Your task to perform on an android device: choose inbox layout in the gmail app Image 0: 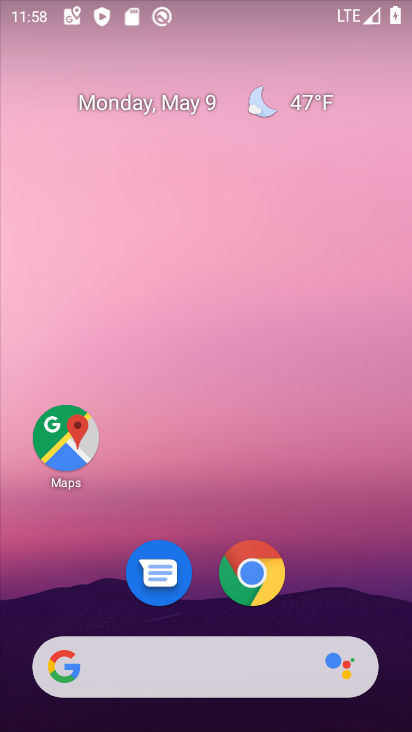
Step 0: drag from (207, 617) to (233, 165)
Your task to perform on an android device: choose inbox layout in the gmail app Image 1: 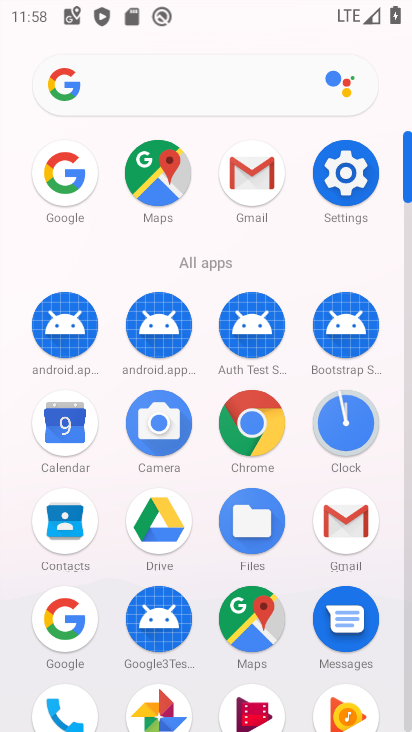
Step 1: click (244, 195)
Your task to perform on an android device: choose inbox layout in the gmail app Image 2: 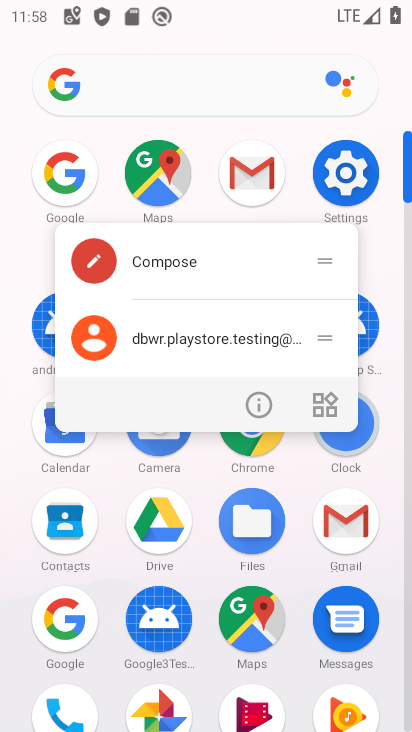
Step 2: click (257, 400)
Your task to perform on an android device: choose inbox layout in the gmail app Image 3: 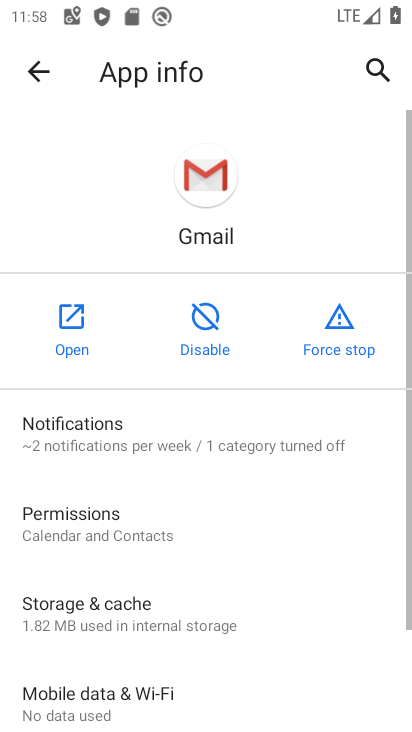
Step 3: click (74, 317)
Your task to perform on an android device: choose inbox layout in the gmail app Image 4: 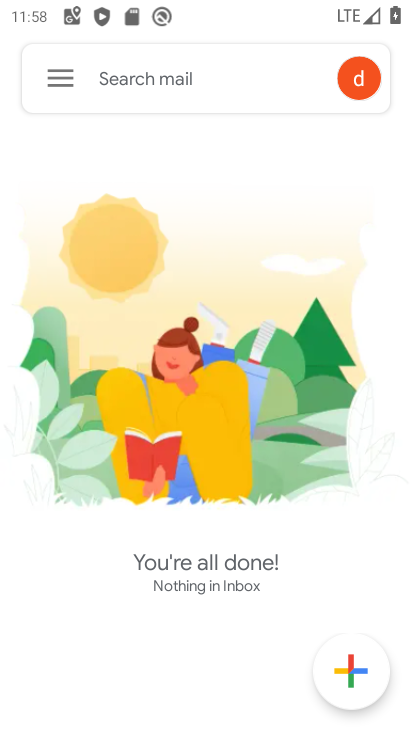
Step 4: click (46, 37)
Your task to perform on an android device: choose inbox layout in the gmail app Image 5: 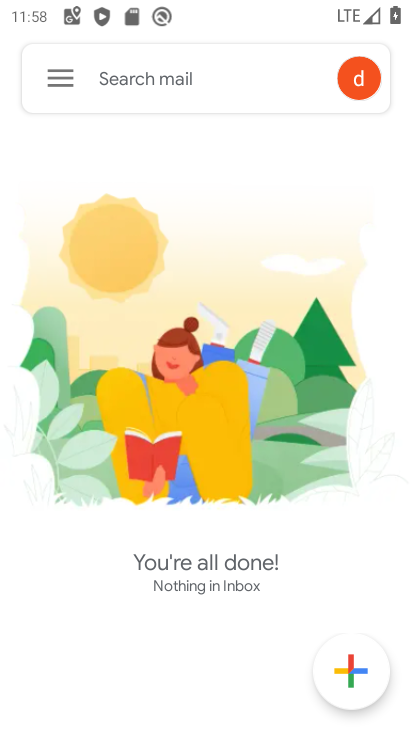
Step 5: click (52, 72)
Your task to perform on an android device: choose inbox layout in the gmail app Image 6: 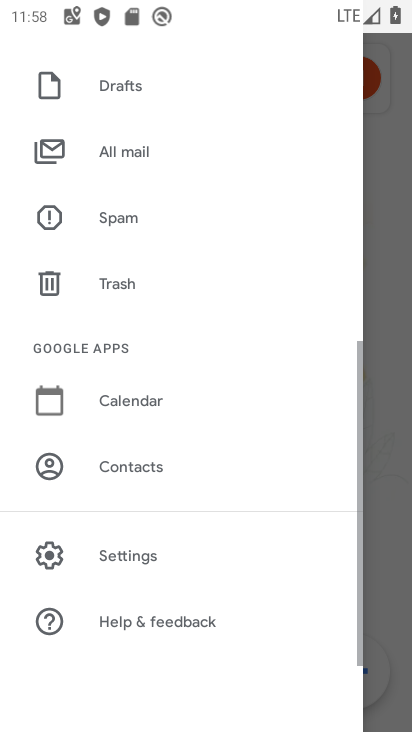
Step 6: drag from (169, 560) to (235, 232)
Your task to perform on an android device: choose inbox layout in the gmail app Image 7: 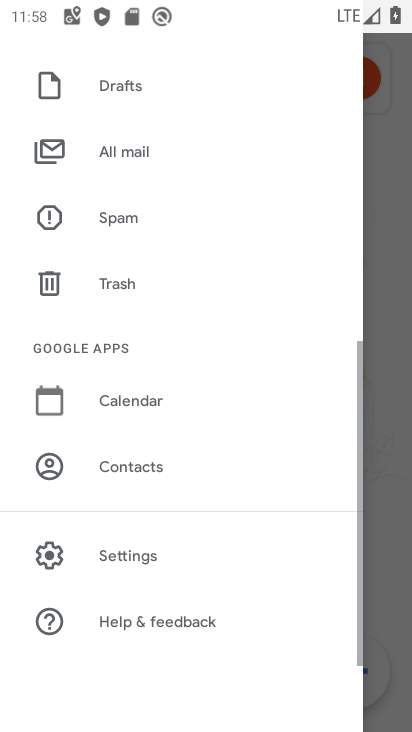
Step 7: click (139, 584)
Your task to perform on an android device: choose inbox layout in the gmail app Image 8: 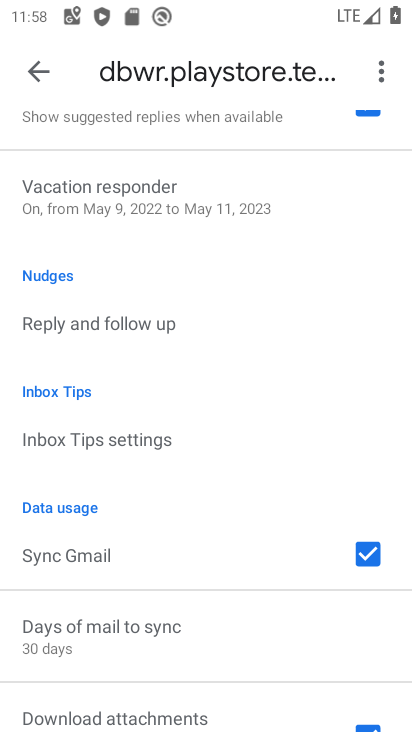
Step 8: click (29, 65)
Your task to perform on an android device: choose inbox layout in the gmail app Image 9: 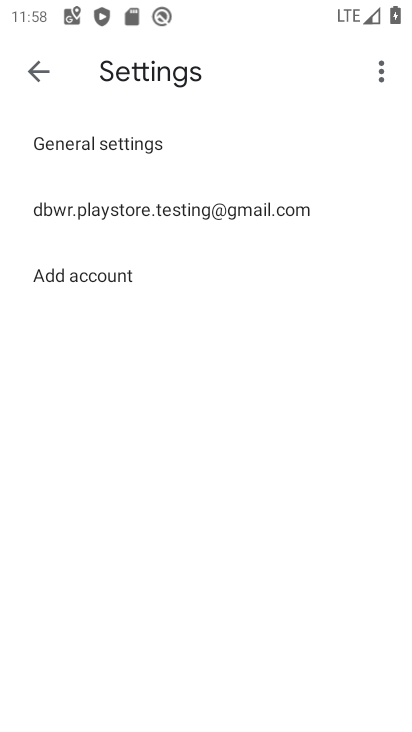
Step 9: click (43, 79)
Your task to perform on an android device: choose inbox layout in the gmail app Image 10: 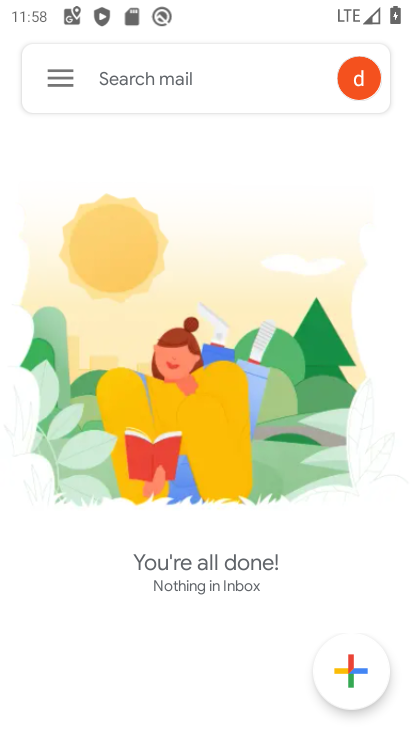
Step 10: click (57, 74)
Your task to perform on an android device: choose inbox layout in the gmail app Image 11: 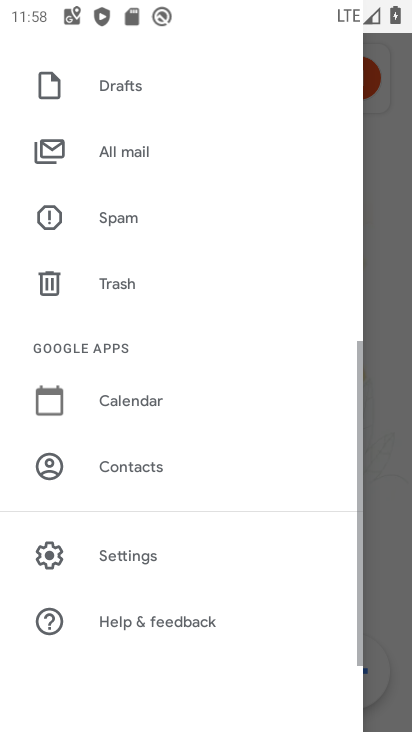
Step 11: drag from (129, 144) to (219, 727)
Your task to perform on an android device: choose inbox layout in the gmail app Image 12: 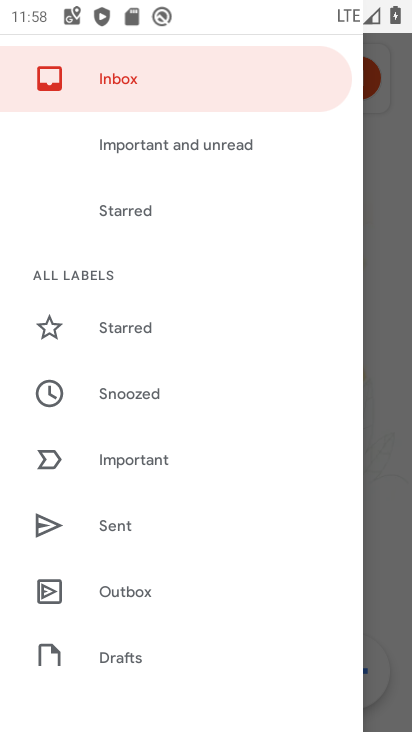
Step 12: click (132, 85)
Your task to perform on an android device: choose inbox layout in the gmail app Image 13: 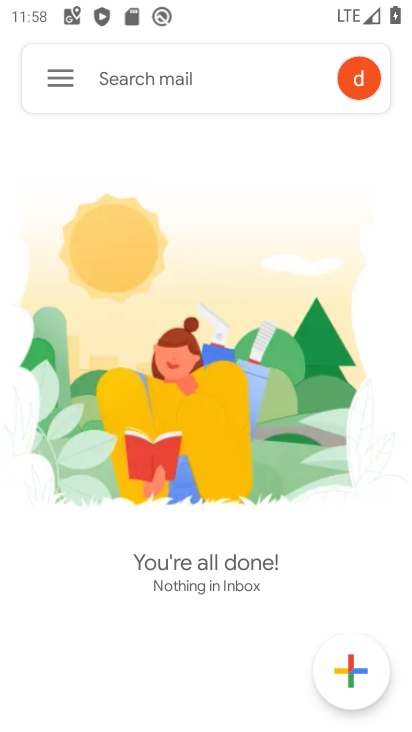
Step 13: task complete